Your task to perform on an android device: What's on my calendar today? Image 0: 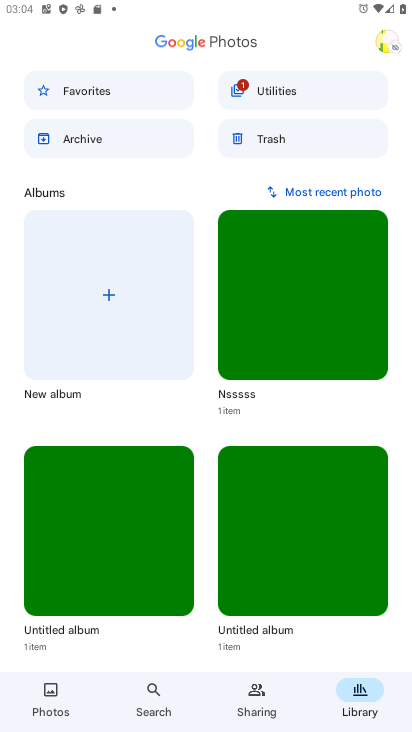
Step 0: press home button
Your task to perform on an android device: What's on my calendar today? Image 1: 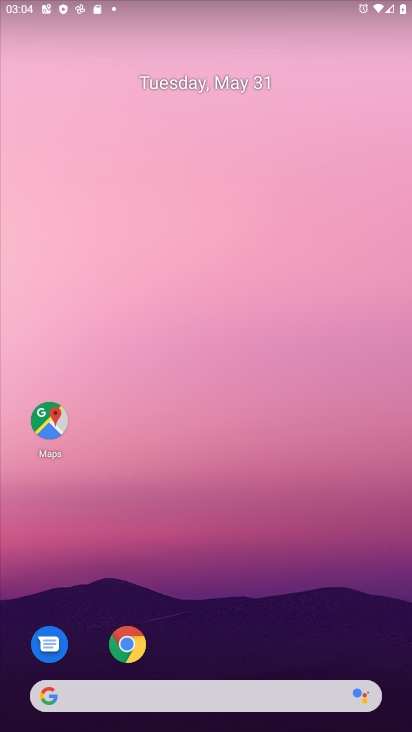
Step 1: drag from (280, 446) to (347, 111)
Your task to perform on an android device: What's on my calendar today? Image 2: 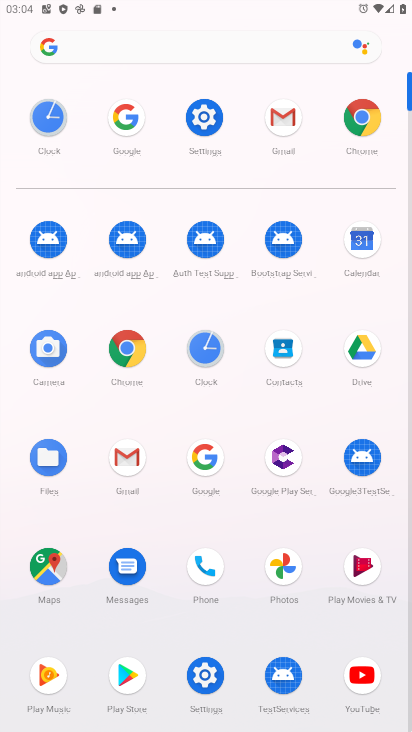
Step 2: click (358, 246)
Your task to perform on an android device: What's on my calendar today? Image 3: 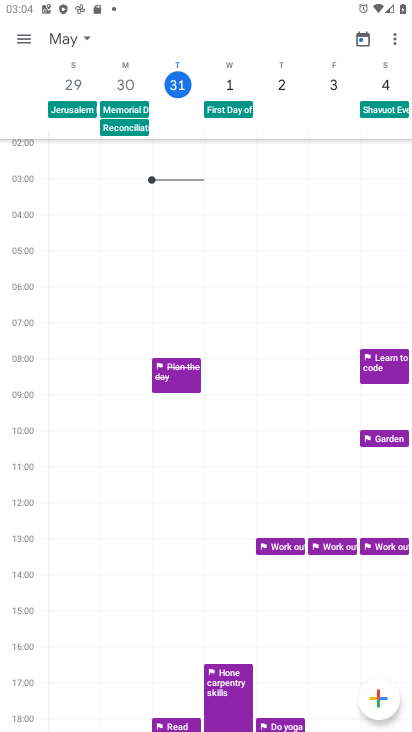
Step 3: click (30, 41)
Your task to perform on an android device: What's on my calendar today? Image 4: 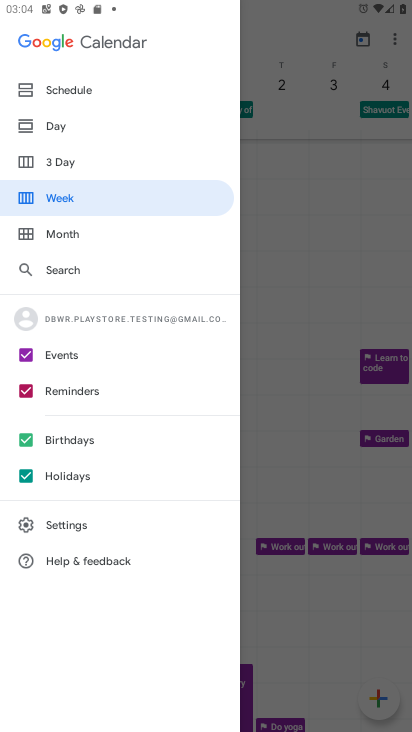
Step 4: click (104, 130)
Your task to perform on an android device: What's on my calendar today? Image 5: 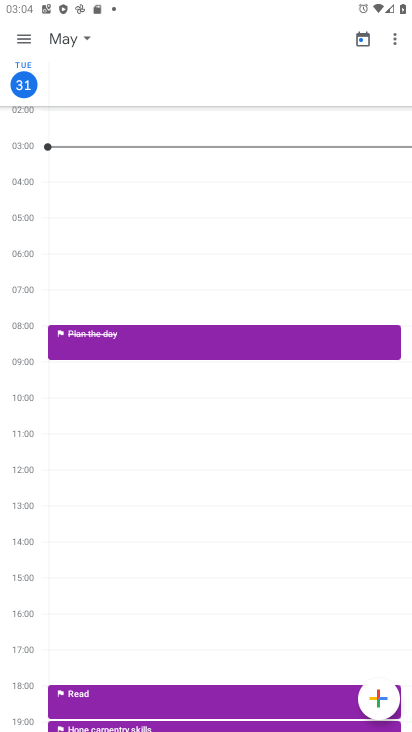
Step 5: task complete